Your task to perform on an android device: Open Chrome and go to settings Image 0: 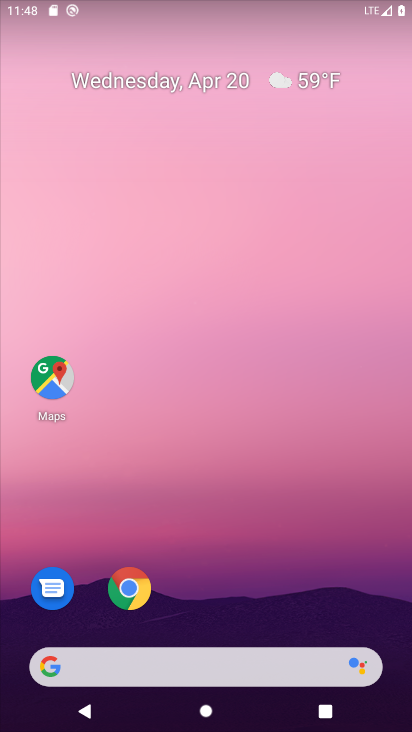
Step 0: click (134, 588)
Your task to perform on an android device: Open Chrome and go to settings Image 1: 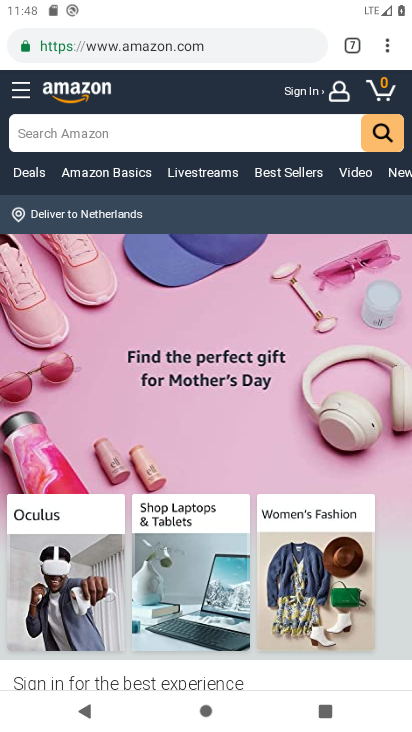
Step 1: click (386, 52)
Your task to perform on an android device: Open Chrome and go to settings Image 2: 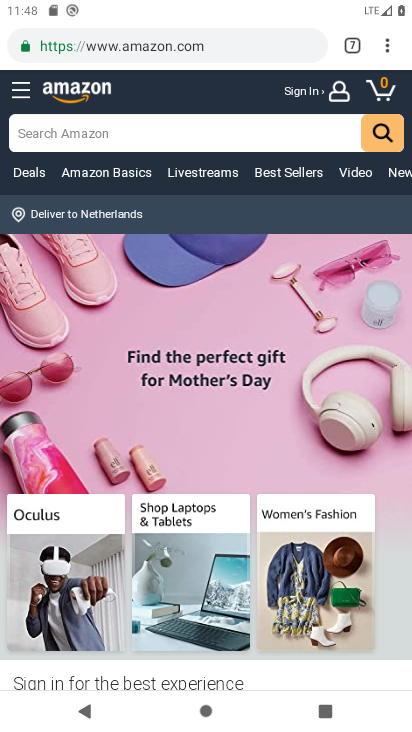
Step 2: click (386, 44)
Your task to perform on an android device: Open Chrome and go to settings Image 3: 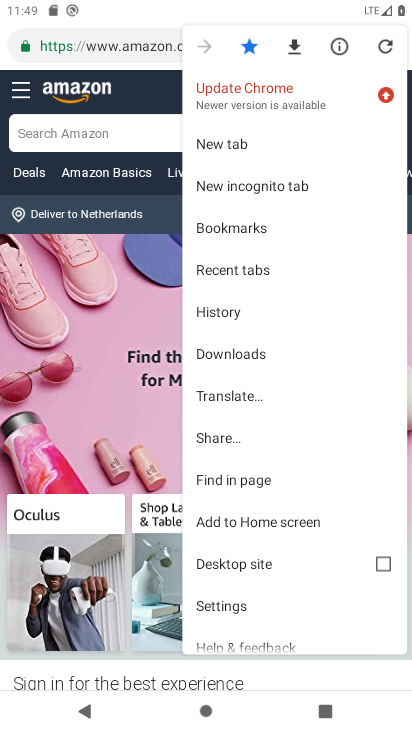
Step 3: click (228, 609)
Your task to perform on an android device: Open Chrome and go to settings Image 4: 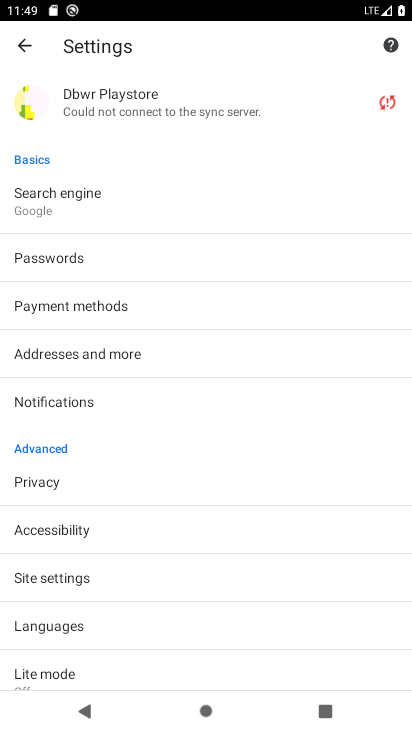
Step 4: task complete